Your task to perform on an android device: Open battery settings Image 0: 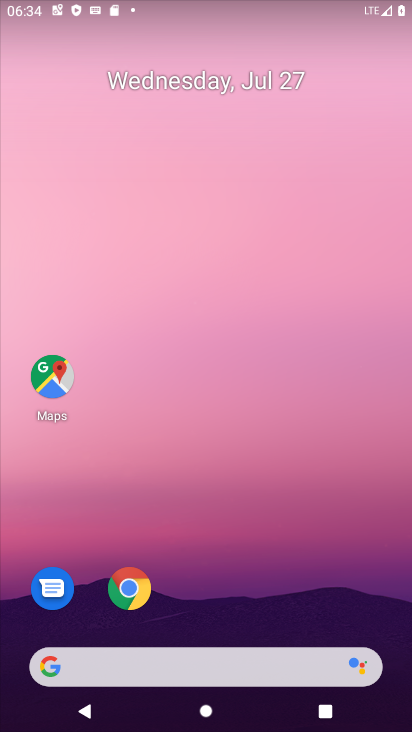
Step 0: drag from (301, 665) to (315, 12)
Your task to perform on an android device: Open battery settings Image 1: 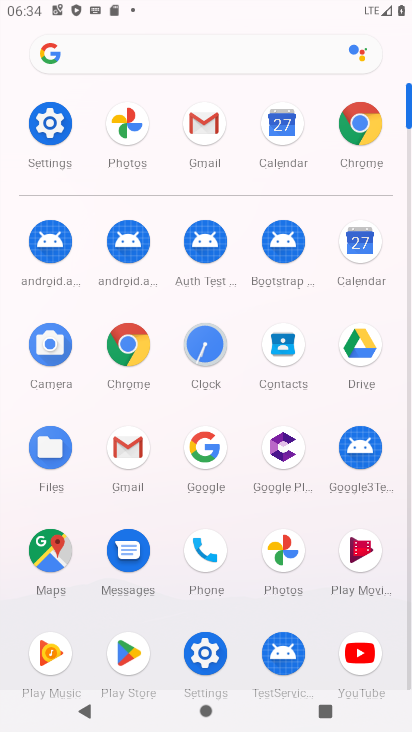
Step 1: click (36, 120)
Your task to perform on an android device: Open battery settings Image 2: 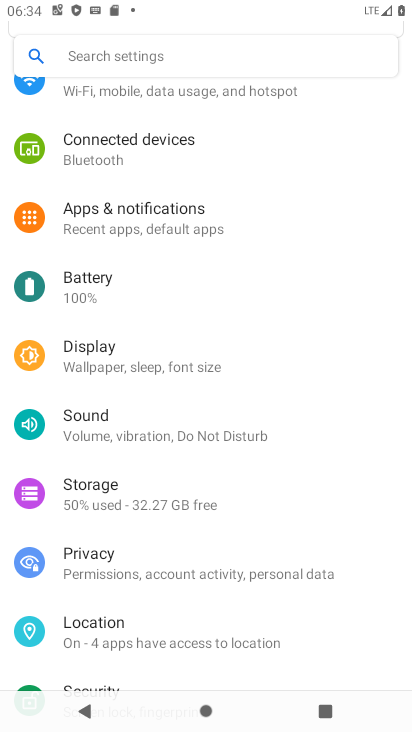
Step 2: click (98, 289)
Your task to perform on an android device: Open battery settings Image 3: 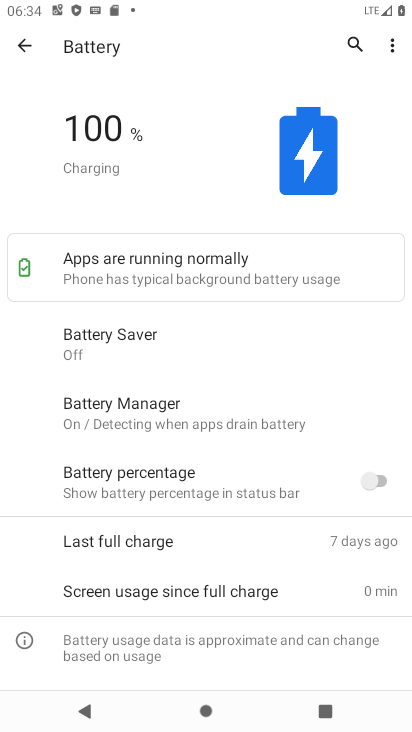
Step 3: task complete